Your task to perform on an android device: Go to Google Image 0: 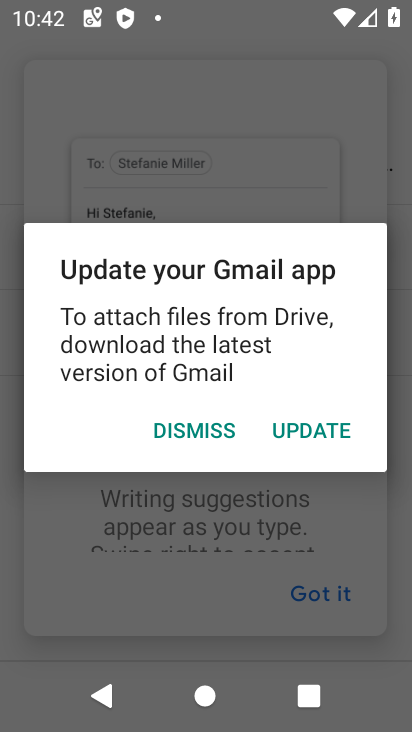
Step 0: click (174, 416)
Your task to perform on an android device: Go to Google Image 1: 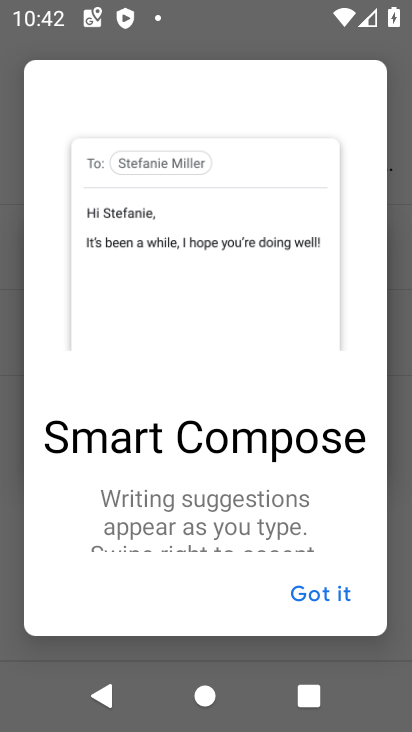
Step 1: click (330, 596)
Your task to perform on an android device: Go to Google Image 2: 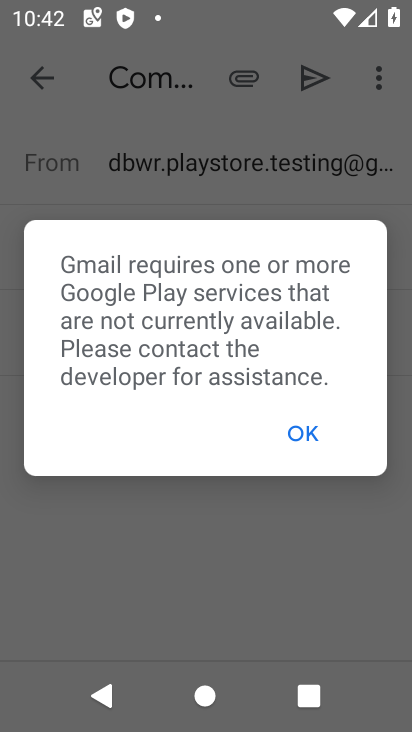
Step 2: click (306, 434)
Your task to perform on an android device: Go to Google Image 3: 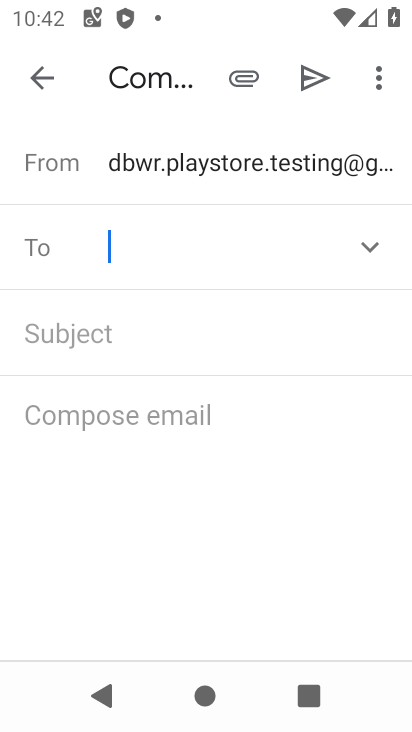
Step 3: press back button
Your task to perform on an android device: Go to Google Image 4: 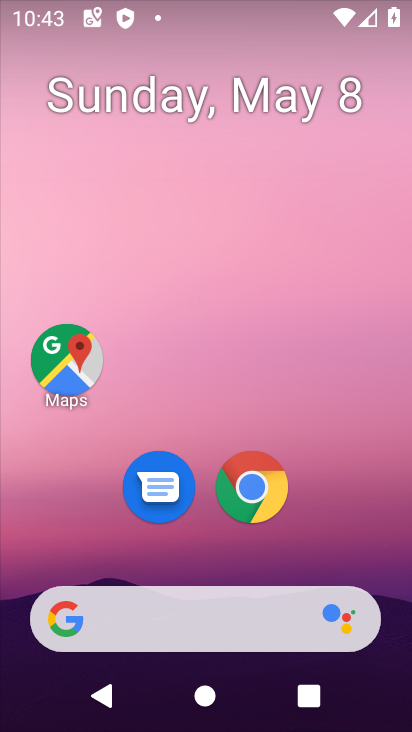
Step 4: click (73, 613)
Your task to perform on an android device: Go to Google Image 5: 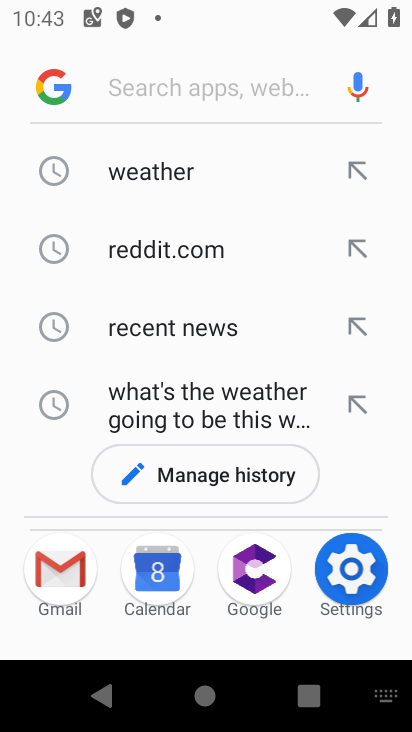
Step 5: task complete